Your task to perform on an android device: Go to ESPN.com Image 0: 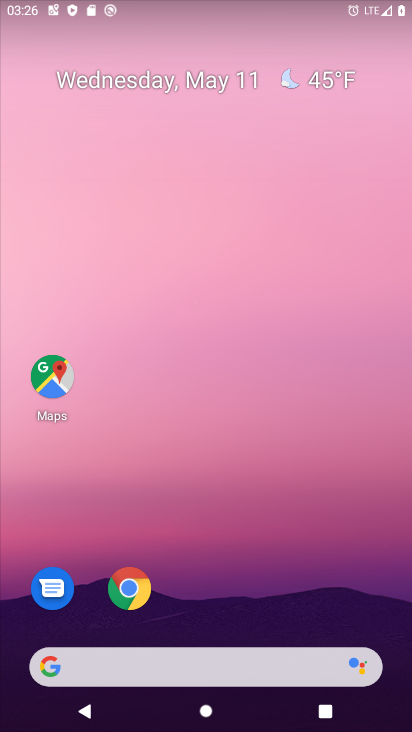
Step 0: click (147, 585)
Your task to perform on an android device: Go to ESPN.com Image 1: 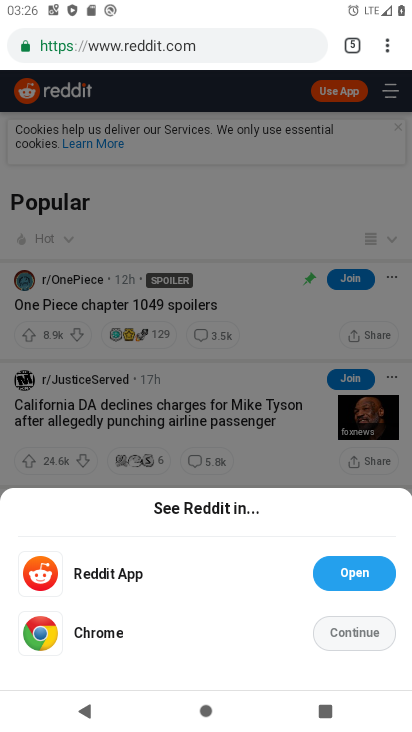
Step 1: click (344, 36)
Your task to perform on an android device: Go to ESPN.com Image 2: 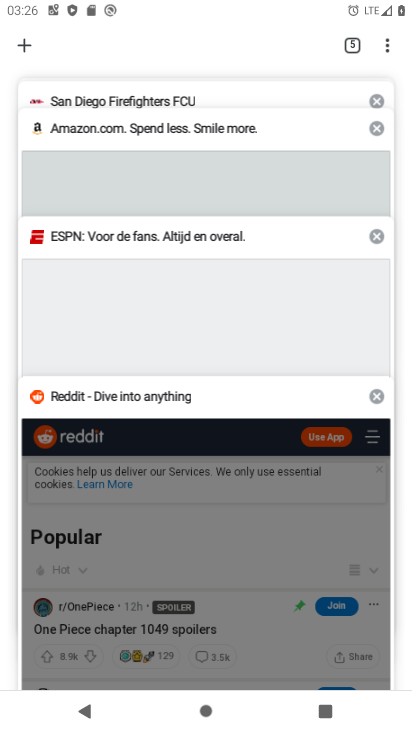
Step 2: click (107, 249)
Your task to perform on an android device: Go to ESPN.com Image 3: 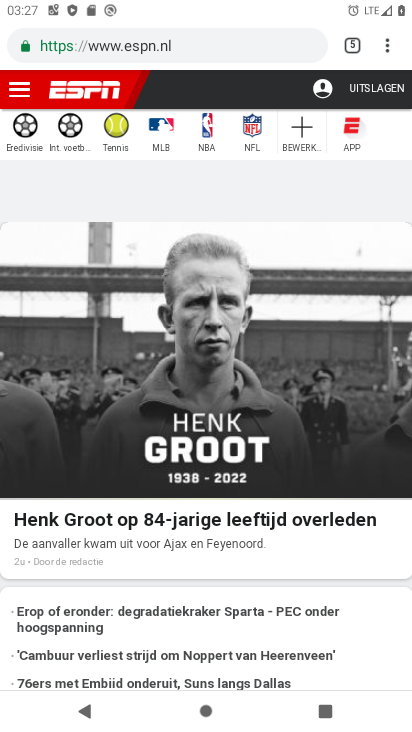
Step 3: task complete